Your task to perform on an android device: Open wifi settings Image 0: 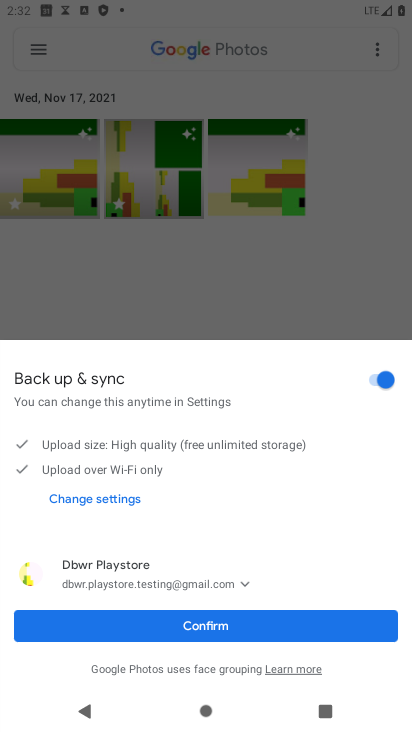
Step 0: press home button
Your task to perform on an android device: Open wifi settings Image 1: 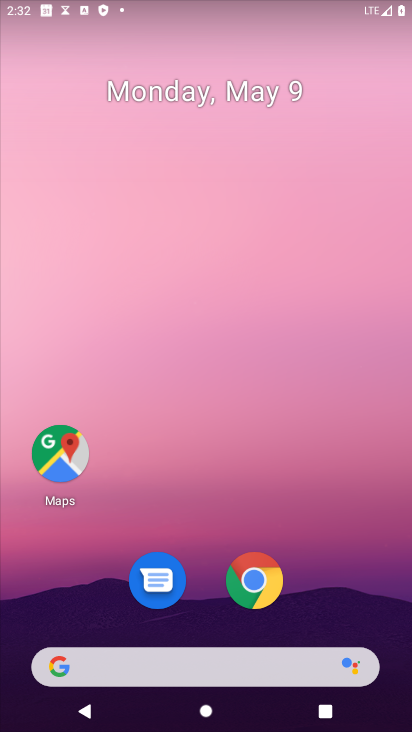
Step 1: drag from (335, 586) to (275, 51)
Your task to perform on an android device: Open wifi settings Image 2: 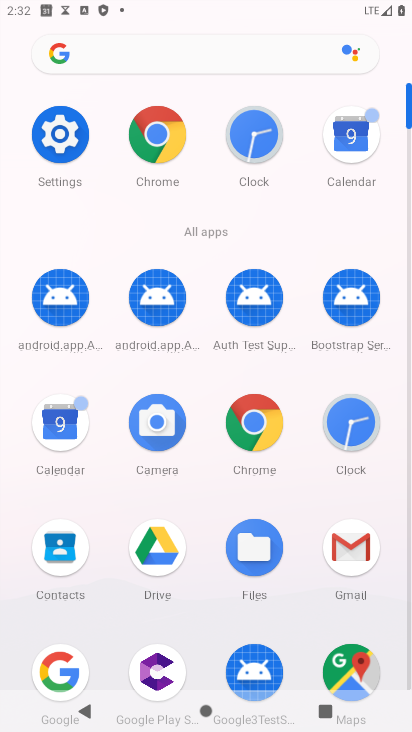
Step 2: click (67, 131)
Your task to perform on an android device: Open wifi settings Image 3: 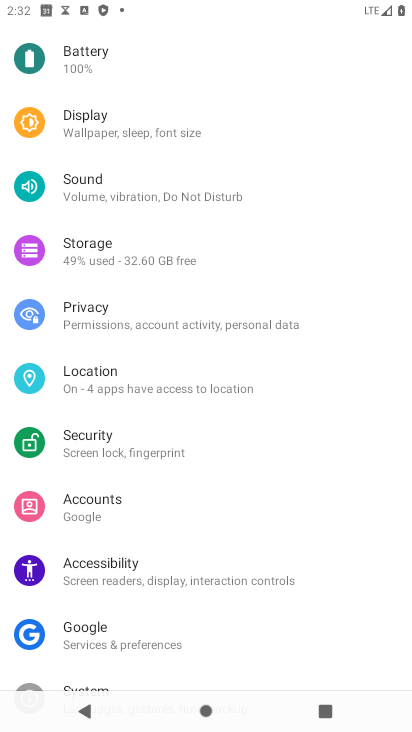
Step 3: drag from (197, 114) to (189, 662)
Your task to perform on an android device: Open wifi settings Image 4: 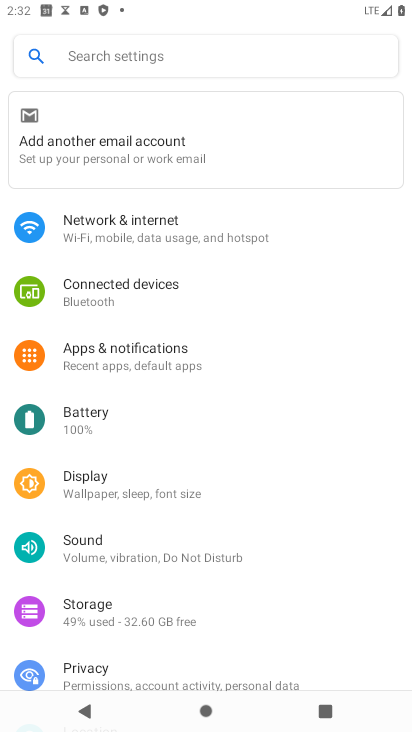
Step 4: click (162, 228)
Your task to perform on an android device: Open wifi settings Image 5: 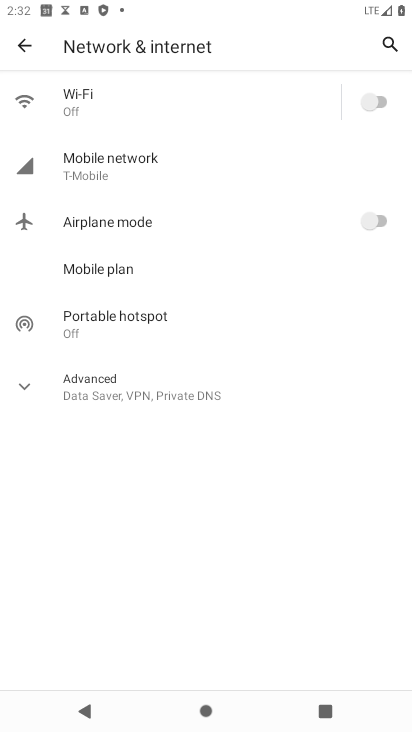
Step 5: click (227, 89)
Your task to perform on an android device: Open wifi settings Image 6: 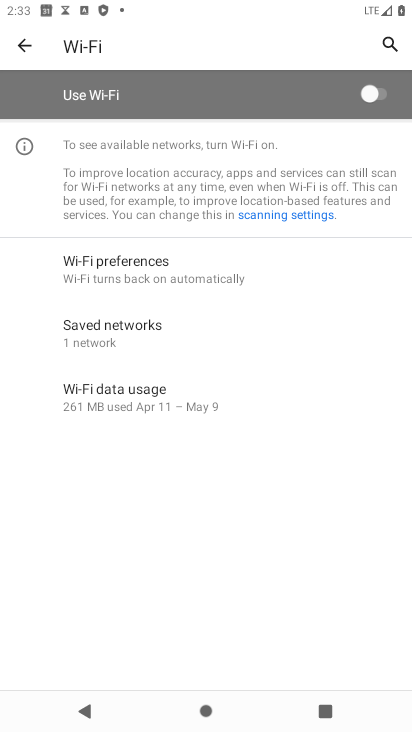
Step 6: task complete